Your task to perform on an android device: turn off wifi Image 0: 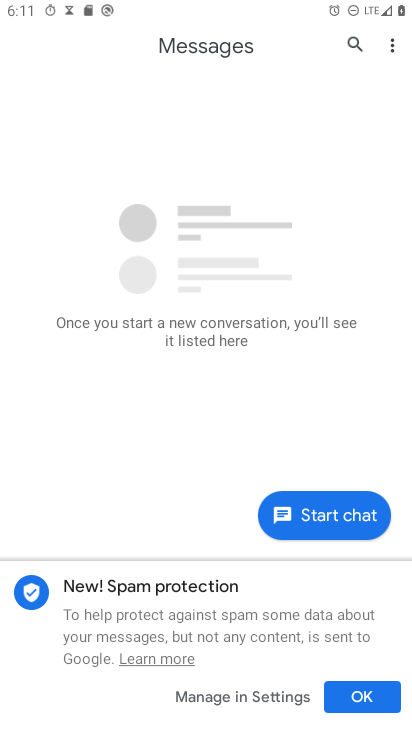
Step 0: press home button
Your task to perform on an android device: turn off wifi Image 1: 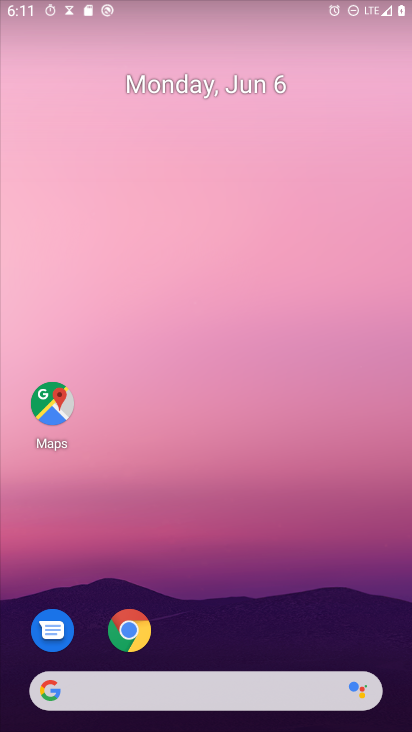
Step 1: drag from (355, 643) to (286, 7)
Your task to perform on an android device: turn off wifi Image 2: 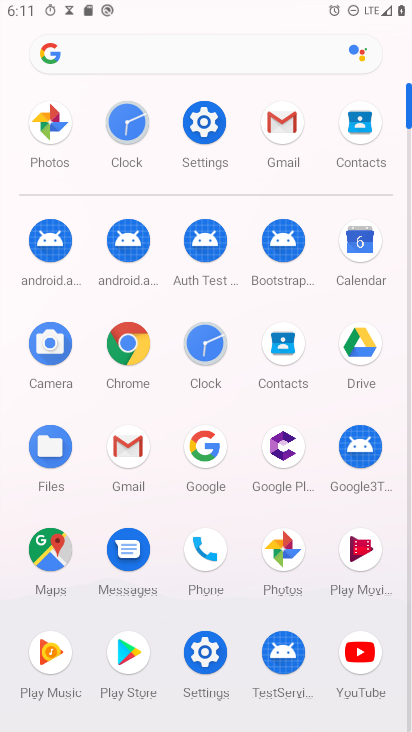
Step 2: click (216, 115)
Your task to perform on an android device: turn off wifi Image 3: 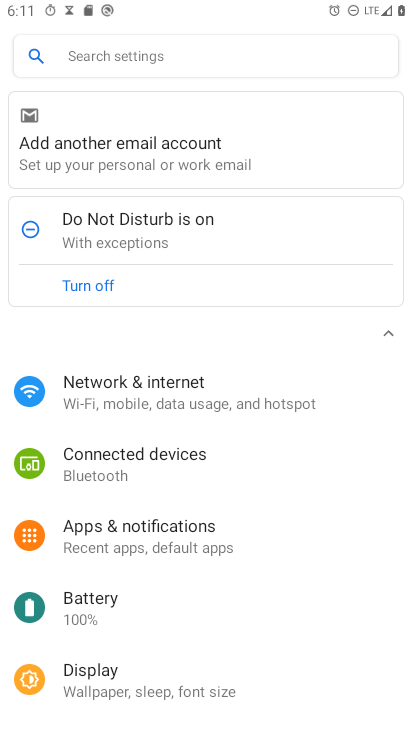
Step 3: click (220, 398)
Your task to perform on an android device: turn off wifi Image 4: 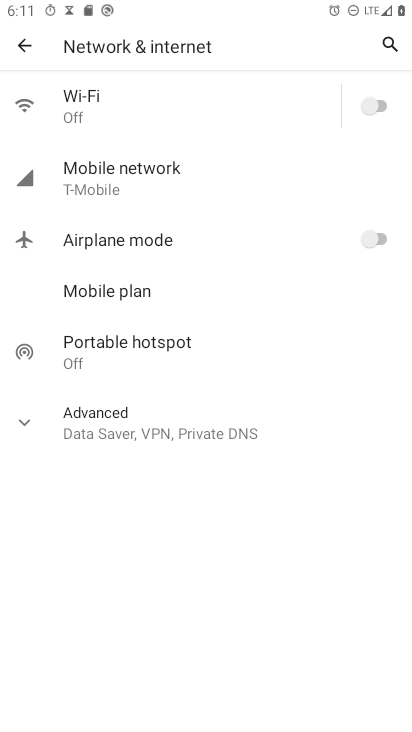
Step 4: task complete